Your task to perform on an android device: Open the map Image 0: 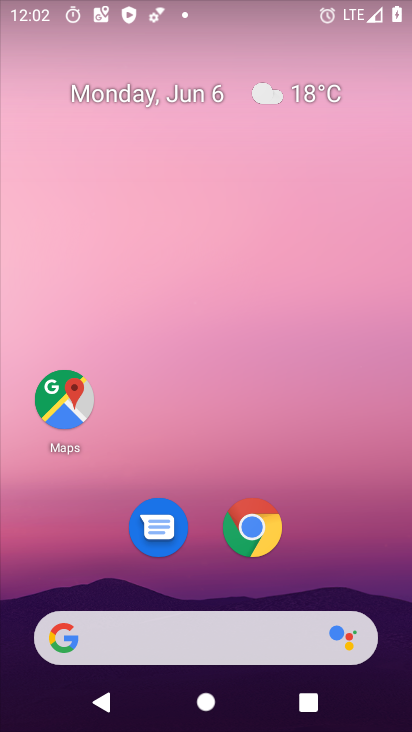
Step 0: click (66, 394)
Your task to perform on an android device: Open the map Image 1: 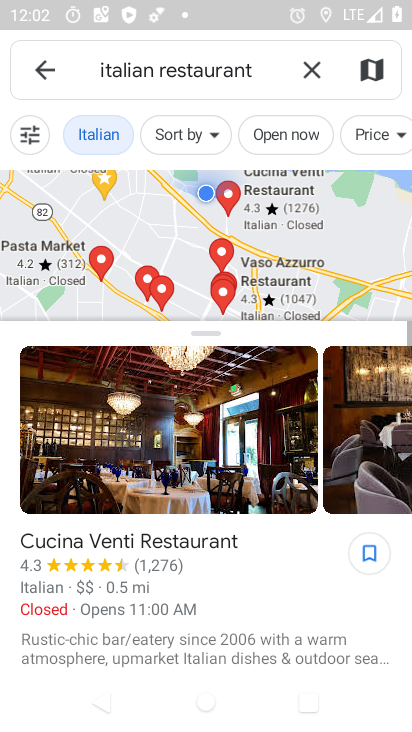
Step 1: click (320, 66)
Your task to perform on an android device: Open the map Image 2: 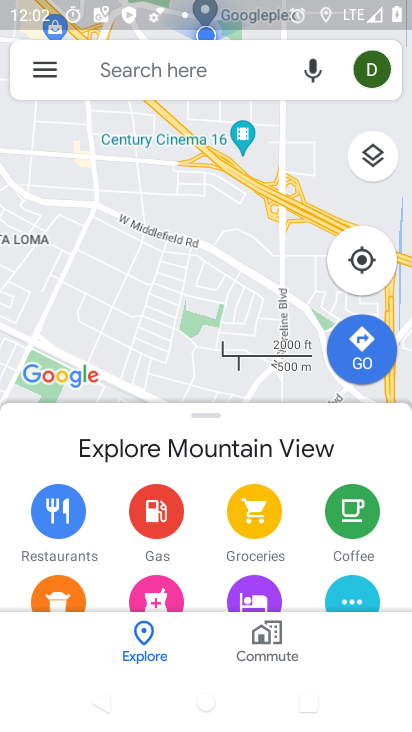
Step 2: task complete